Your task to perform on an android device: turn on data saver in the chrome app Image 0: 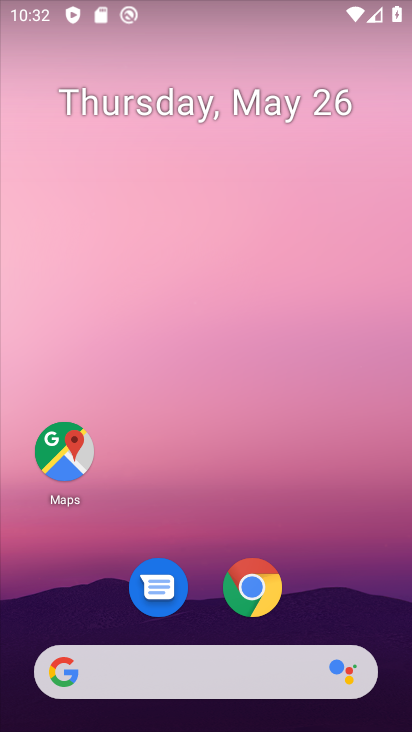
Step 0: drag from (285, 683) to (254, 114)
Your task to perform on an android device: turn on data saver in the chrome app Image 1: 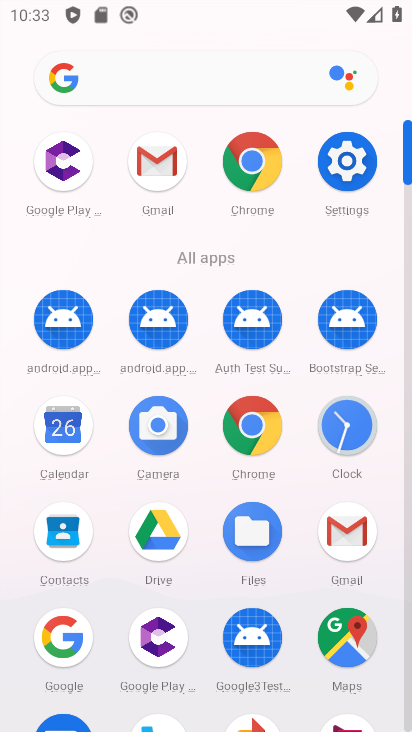
Step 1: click (255, 182)
Your task to perform on an android device: turn on data saver in the chrome app Image 2: 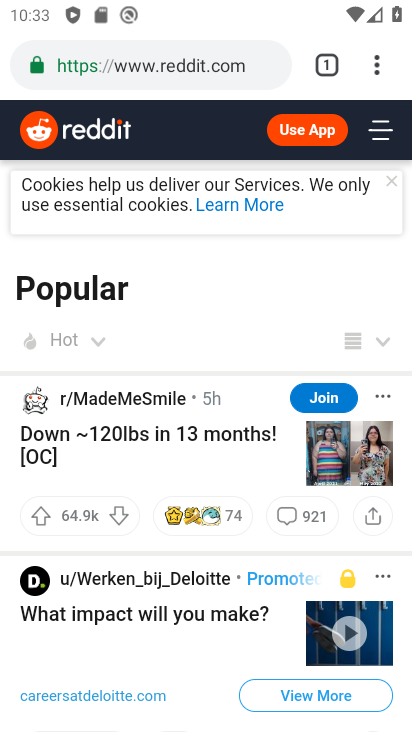
Step 2: click (359, 90)
Your task to perform on an android device: turn on data saver in the chrome app Image 3: 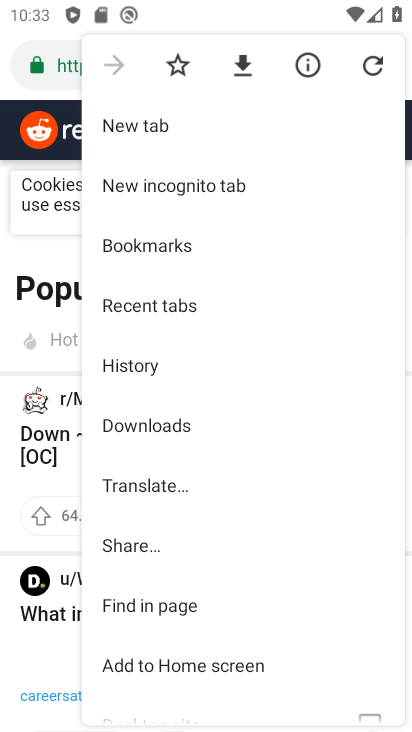
Step 3: drag from (171, 564) to (177, 332)
Your task to perform on an android device: turn on data saver in the chrome app Image 4: 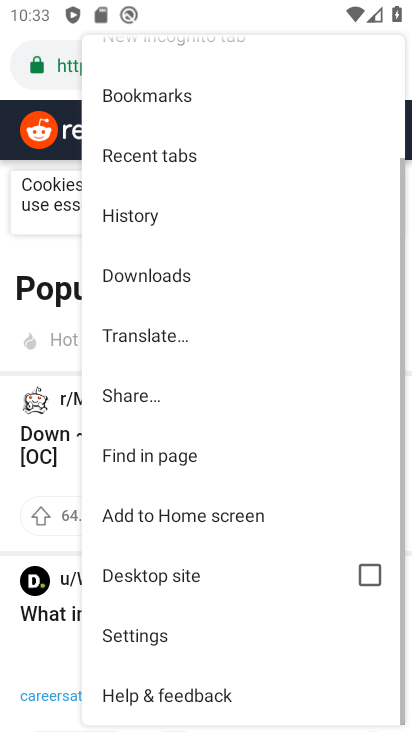
Step 4: click (162, 641)
Your task to perform on an android device: turn on data saver in the chrome app Image 5: 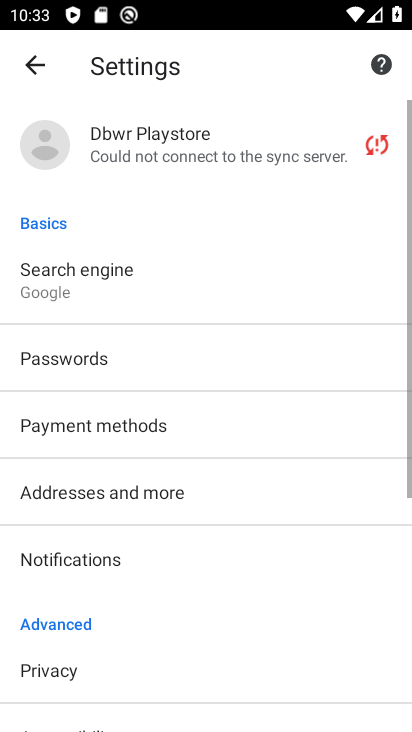
Step 5: drag from (162, 644) to (191, 375)
Your task to perform on an android device: turn on data saver in the chrome app Image 6: 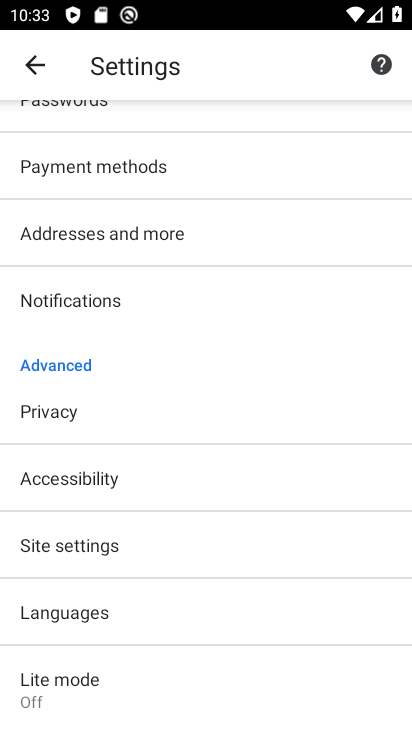
Step 6: click (80, 669)
Your task to perform on an android device: turn on data saver in the chrome app Image 7: 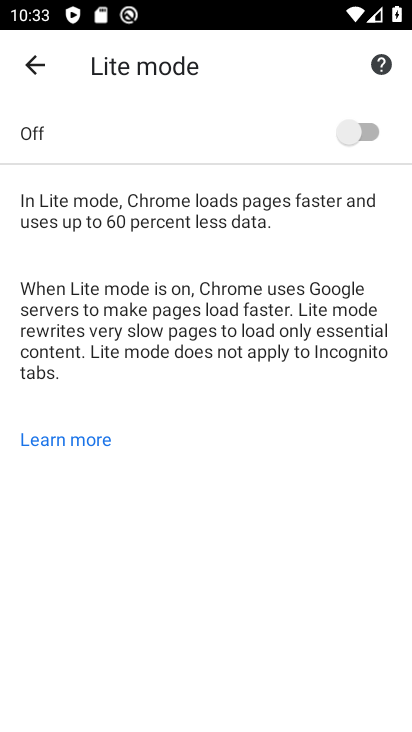
Step 7: click (355, 142)
Your task to perform on an android device: turn on data saver in the chrome app Image 8: 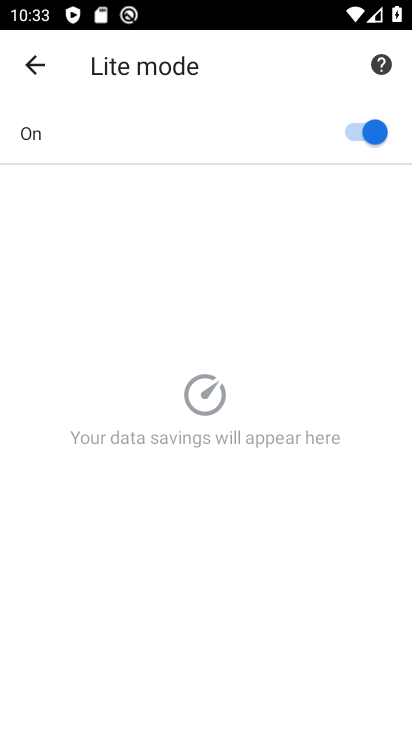
Step 8: task complete